Your task to perform on an android device: Open settings Image 0: 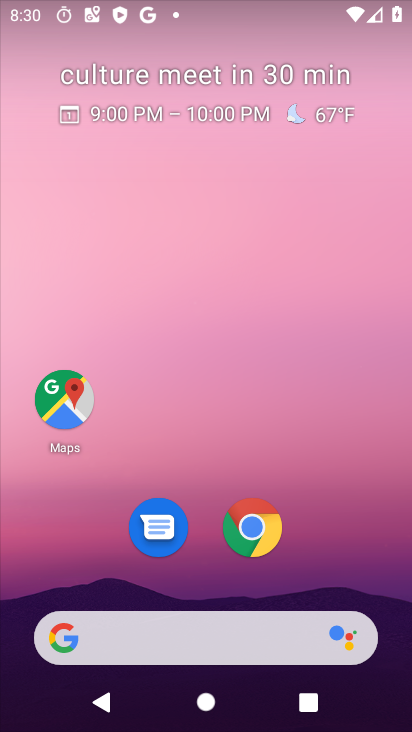
Step 0: drag from (237, 723) to (242, 38)
Your task to perform on an android device: Open settings Image 1: 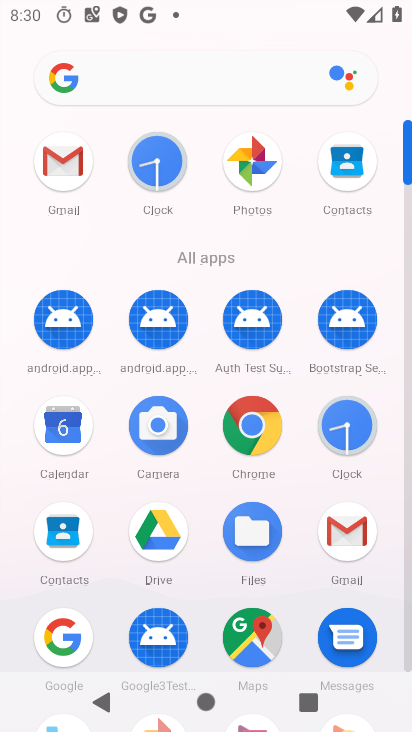
Step 1: drag from (319, 615) to (320, 217)
Your task to perform on an android device: Open settings Image 2: 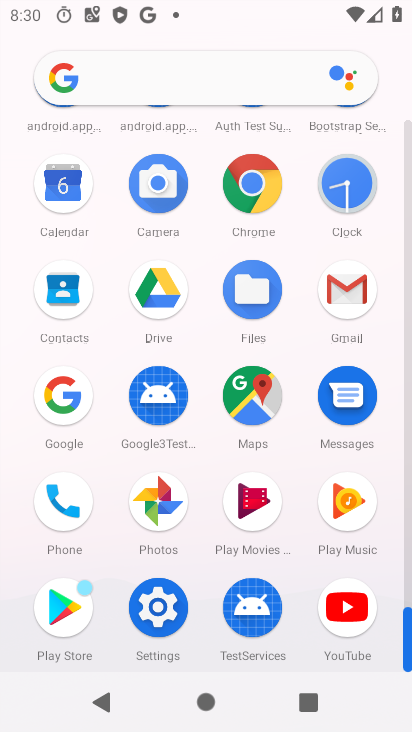
Step 2: click (162, 608)
Your task to perform on an android device: Open settings Image 3: 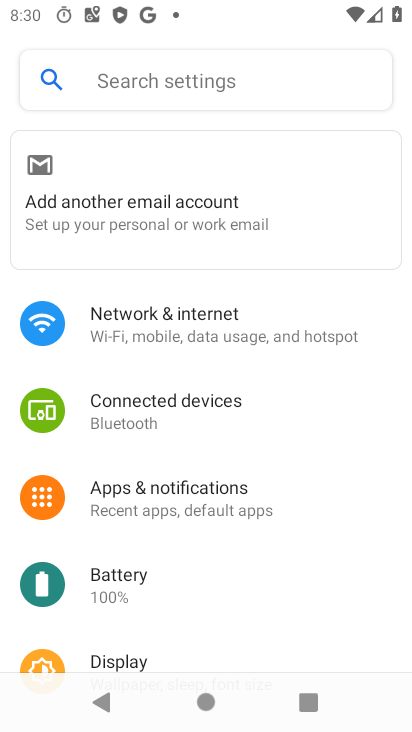
Step 3: task complete